Your task to perform on an android device: Go to Yahoo.com Image 0: 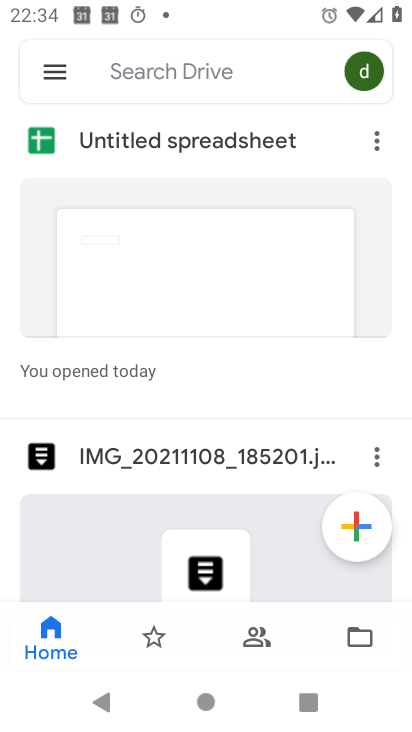
Step 0: press home button
Your task to perform on an android device: Go to Yahoo.com Image 1: 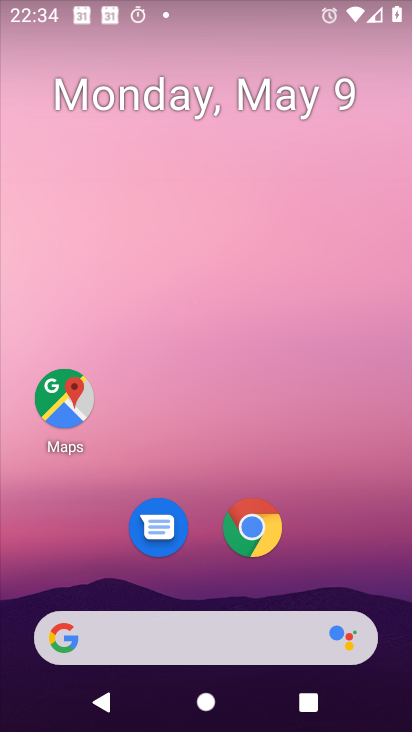
Step 1: click (249, 525)
Your task to perform on an android device: Go to Yahoo.com Image 2: 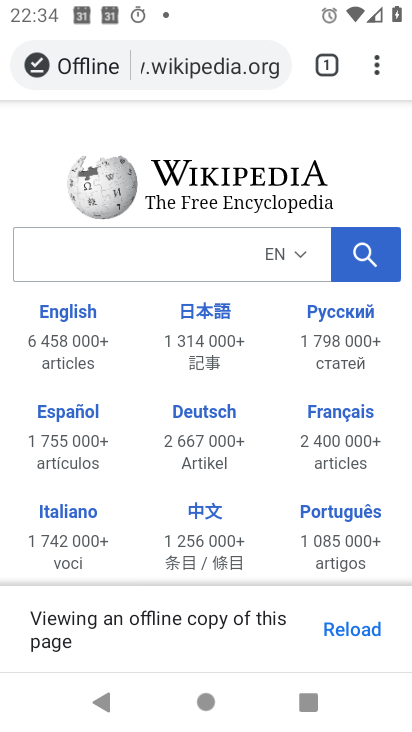
Step 2: press back button
Your task to perform on an android device: Go to Yahoo.com Image 3: 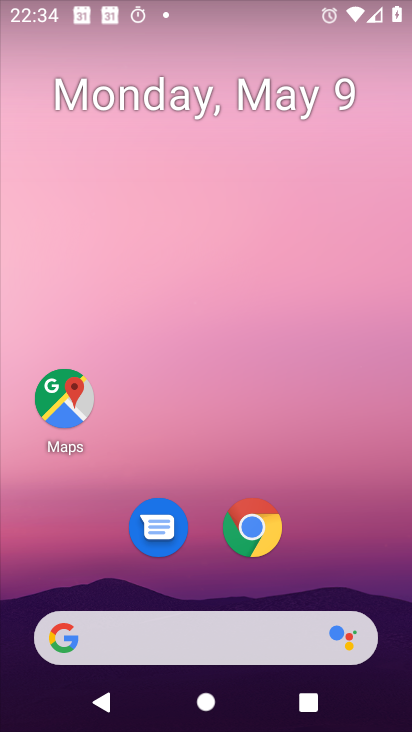
Step 3: click (262, 526)
Your task to perform on an android device: Go to Yahoo.com Image 4: 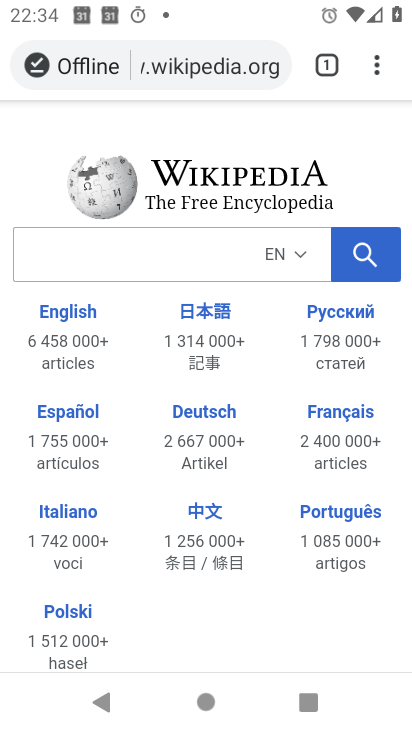
Step 4: click (329, 70)
Your task to perform on an android device: Go to Yahoo.com Image 5: 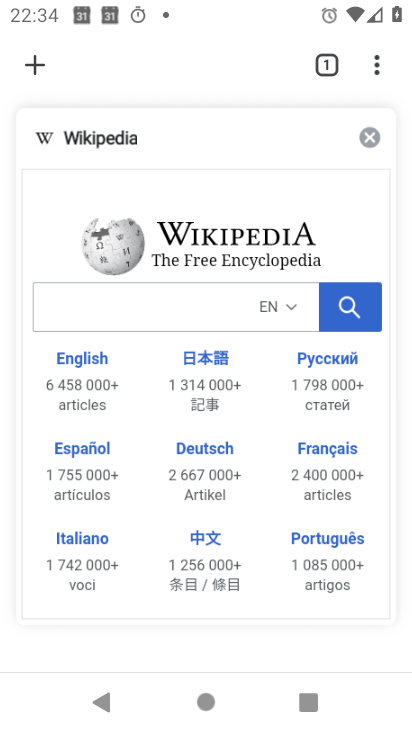
Step 5: click (33, 58)
Your task to perform on an android device: Go to Yahoo.com Image 6: 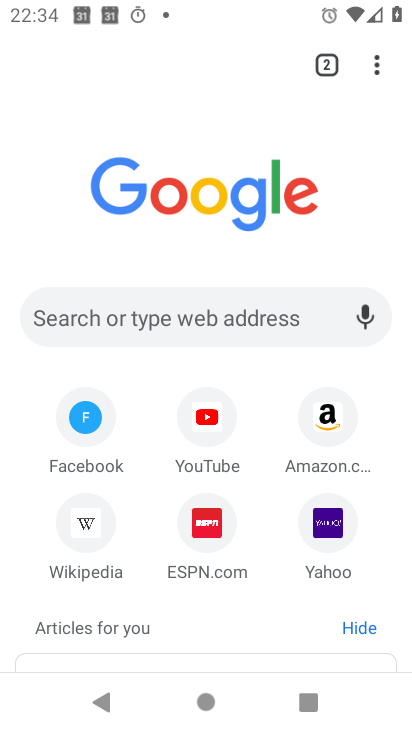
Step 6: task complete